Your task to perform on an android device: Clear the cart on amazon.com. Search for amazon basics triple a on amazon.com, select the first entry, add it to the cart, then select checkout. Image 0: 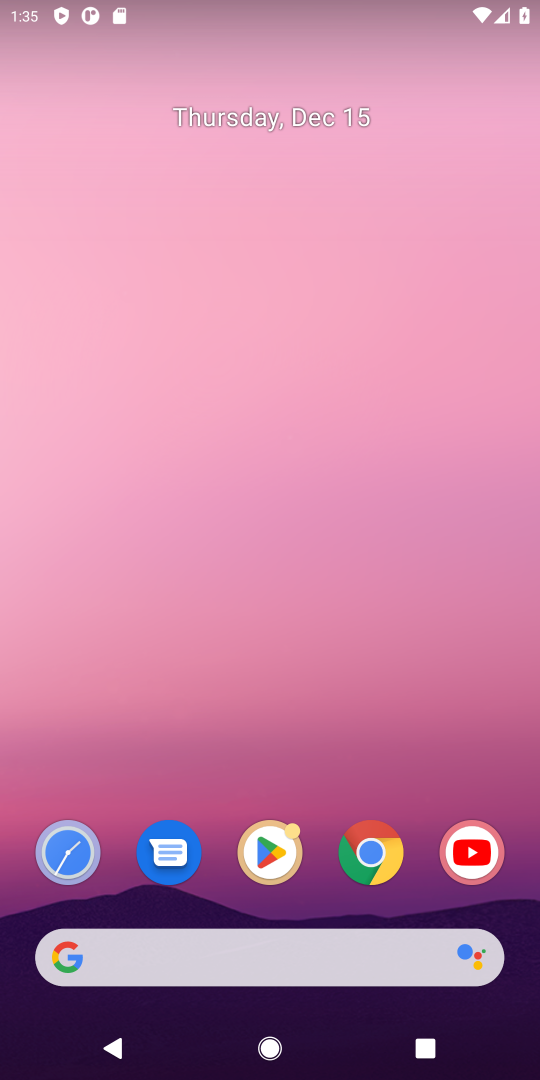
Step 0: click (384, 838)
Your task to perform on an android device: Clear the cart on amazon.com. Search for amazon basics triple a on amazon.com, select the first entry, add it to the cart, then select checkout. Image 1: 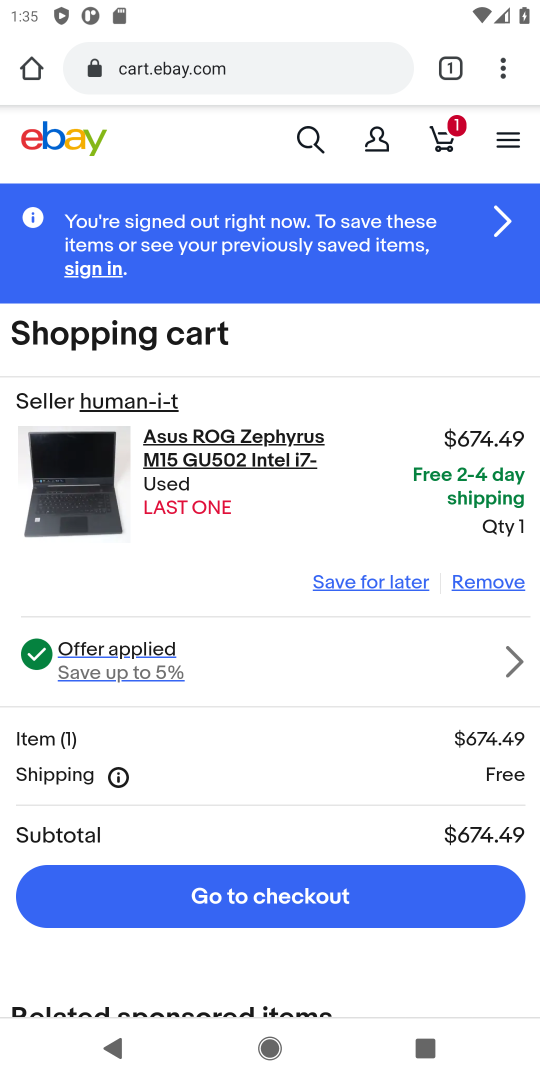
Step 1: click (226, 63)
Your task to perform on an android device: Clear the cart on amazon.com. Search for amazon basics triple a on amazon.com, select the first entry, add it to the cart, then select checkout. Image 2: 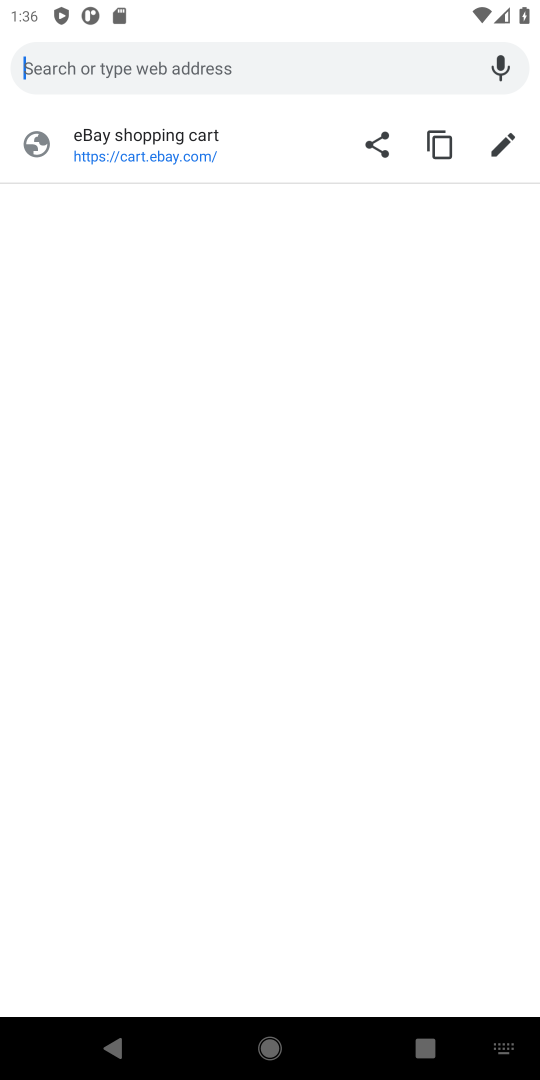
Step 2: type "amazon.com"
Your task to perform on an android device: Clear the cart on amazon.com. Search for amazon basics triple a on amazon.com, select the first entry, add it to the cart, then select checkout. Image 3: 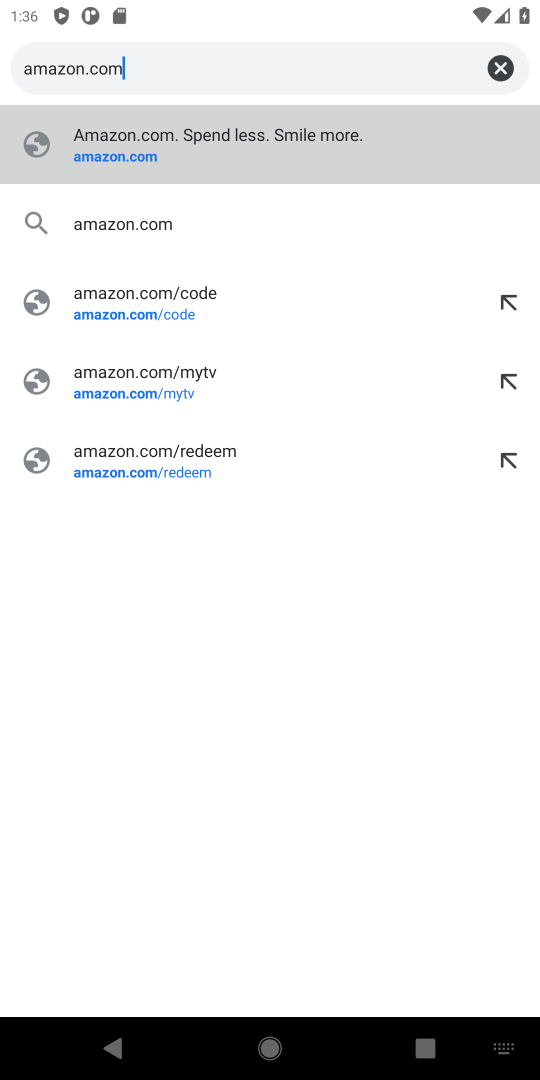
Step 3: click (215, 141)
Your task to perform on an android device: Clear the cart on amazon.com. Search for amazon basics triple a on amazon.com, select the first entry, add it to the cart, then select checkout. Image 4: 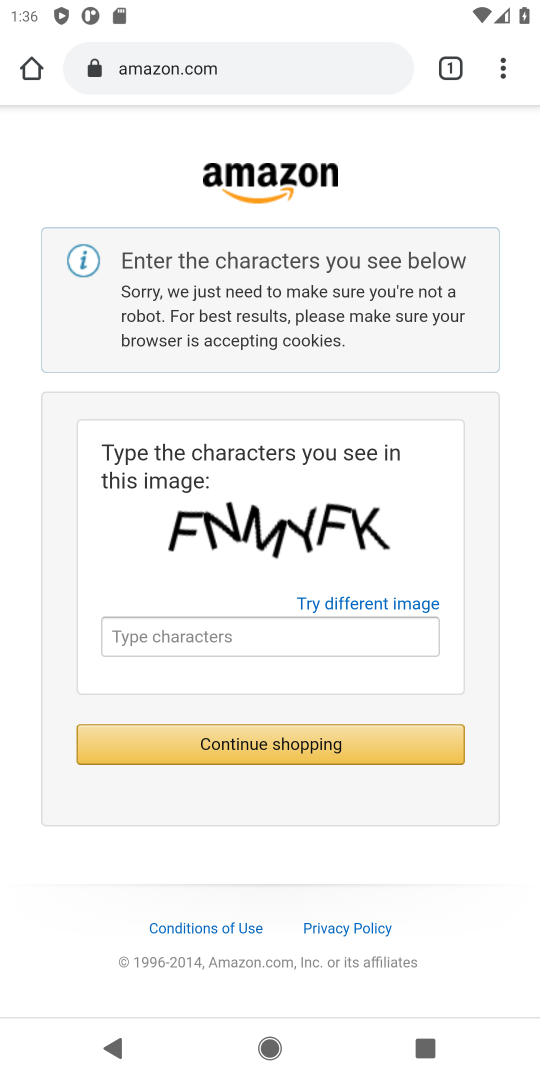
Step 4: click (227, 633)
Your task to perform on an android device: Clear the cart on amazon.com. Search for amazon basics triple a on amazon.com, select the first entry, add it to the cart, then select checkout. Image 5: 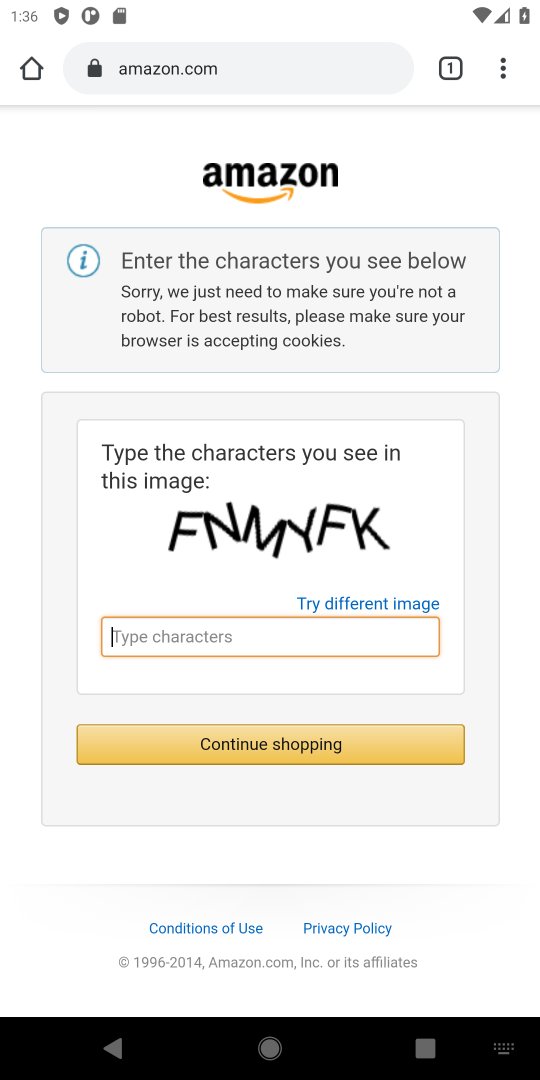
Step 5: type "FNMYFK"
Your task to perform on an android device: Clear the cart on amazon.com. Search for amazon basics triple a on amazon.com, select the first entry, add it to the cart, then select checkout. Image 6: 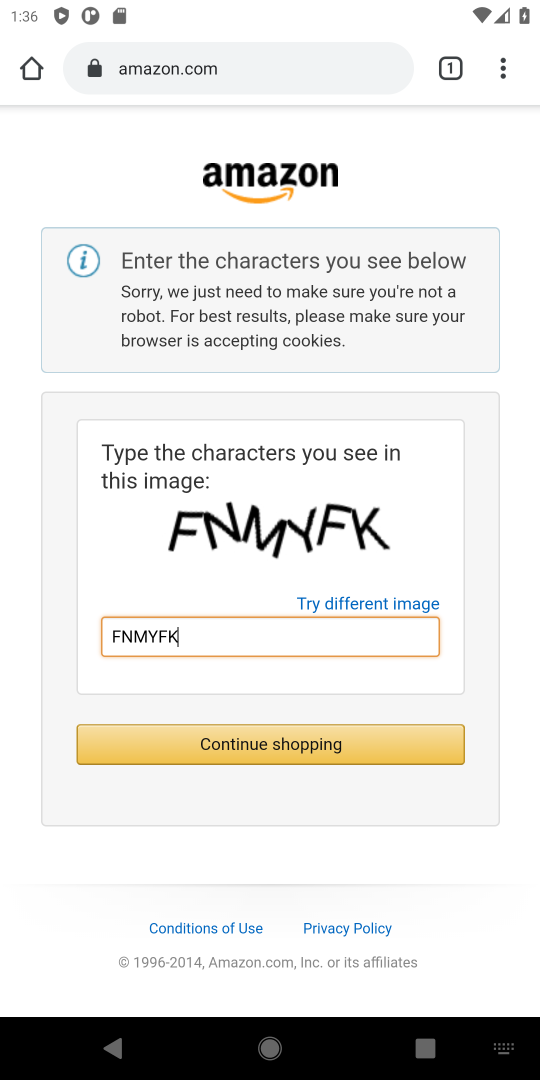
Step 6: click (329, 744)
Your task to perform on an android device: Clear the cart on amazon.com. Search for amazon basics triple a on amazon.com, select the first entry, add it to the cart, then select checkout. Image 7: 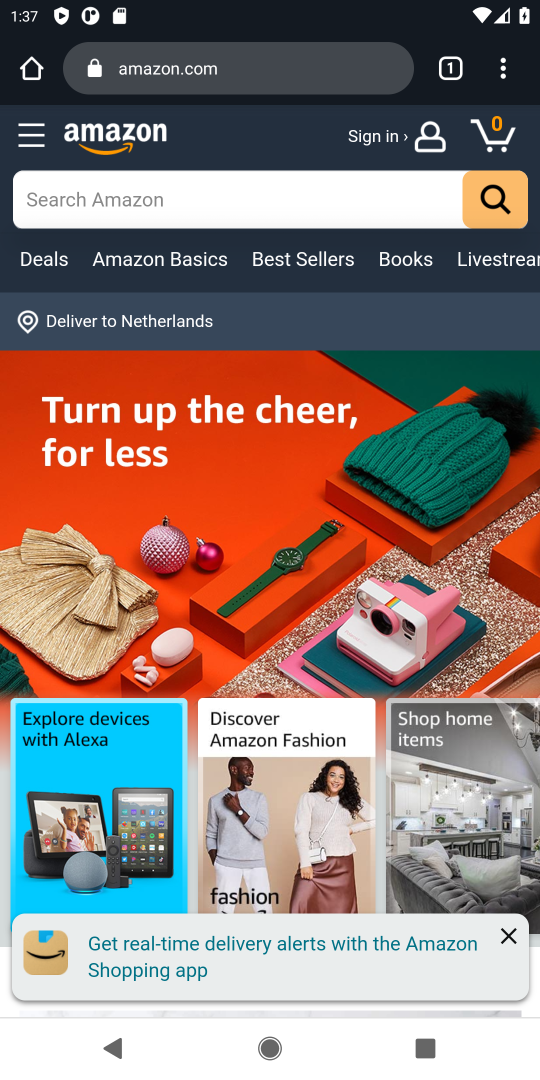
Step 7: click (291, 201)
Your task to perform on an android device: Clear the cart on amazon.com. Search for amazon basics triple a on amazon.com, select the first entry, add it to the cart, then select checkout. Image 8: 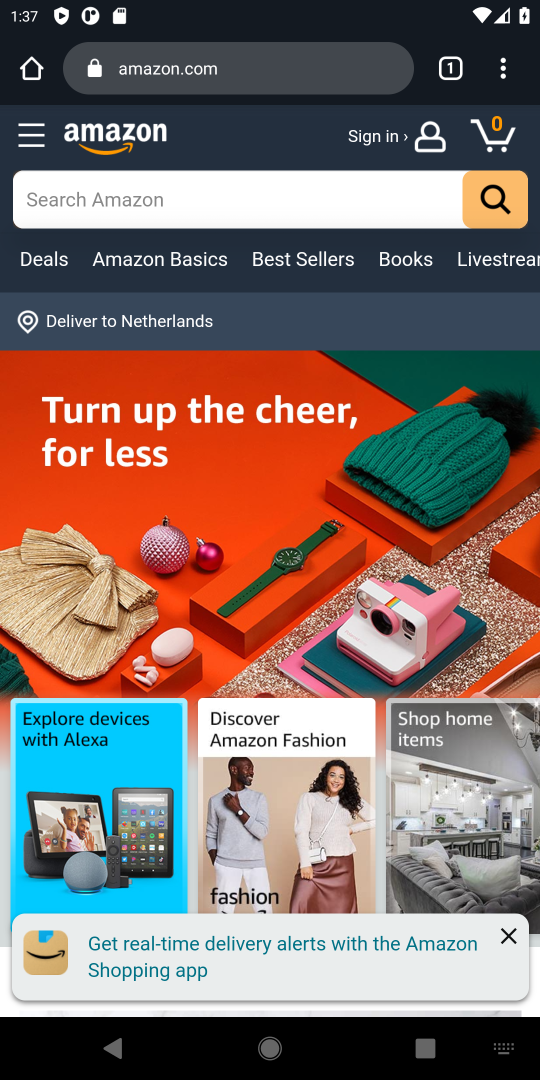
Step 8: type "amazon basics triple a"
Your task to perform on an android device: Clear the cart on amazon.com. Search for amazon basics triple a on amazon.com, select the first entry, add it to the cart, then select checkout. Image 9: 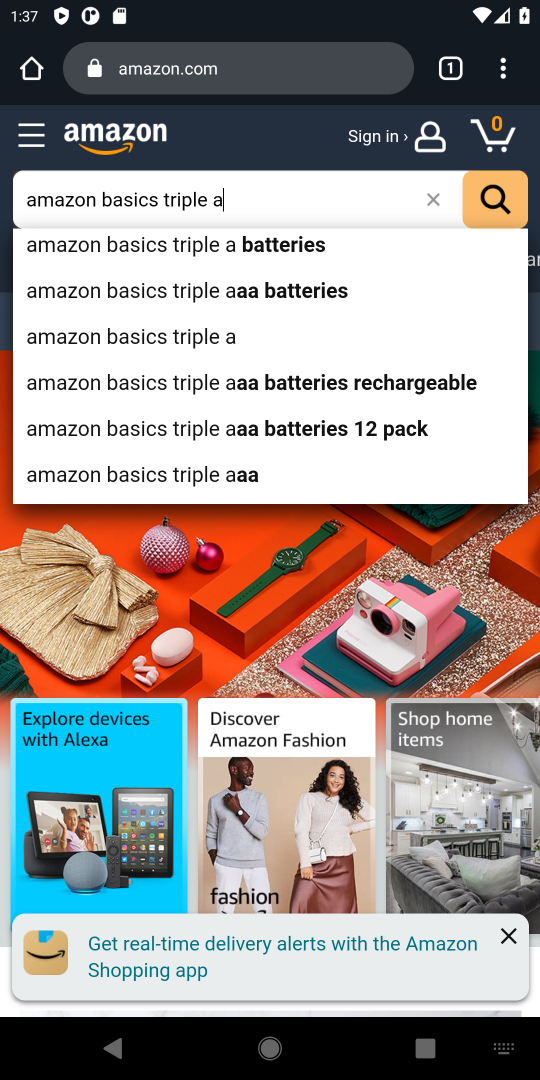
Step 9: press enter
Your task to perform on an android device: Clear the cart on amazon.com. Search for amazon basics triple a on amazon.com, select the first entry, add it to the cart, then select checkout. Image 10: 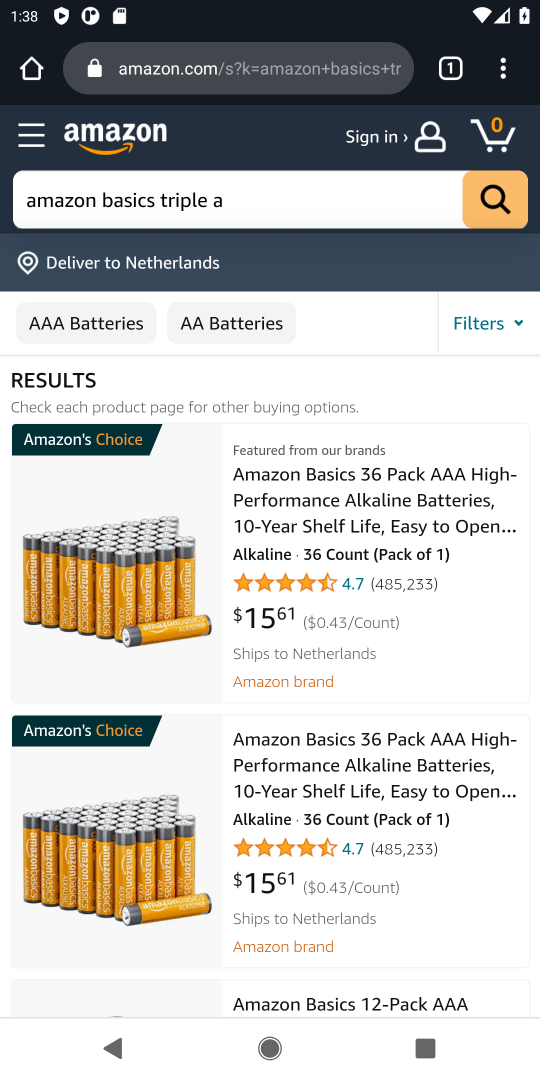
Step 10: click (198, 561)
Your task to perform on an android device: Clear the cart on amazon.com. Search for amazon basics triple a on amazon.com, select the first entry, add it to the cart, then select checkout. Image 11: 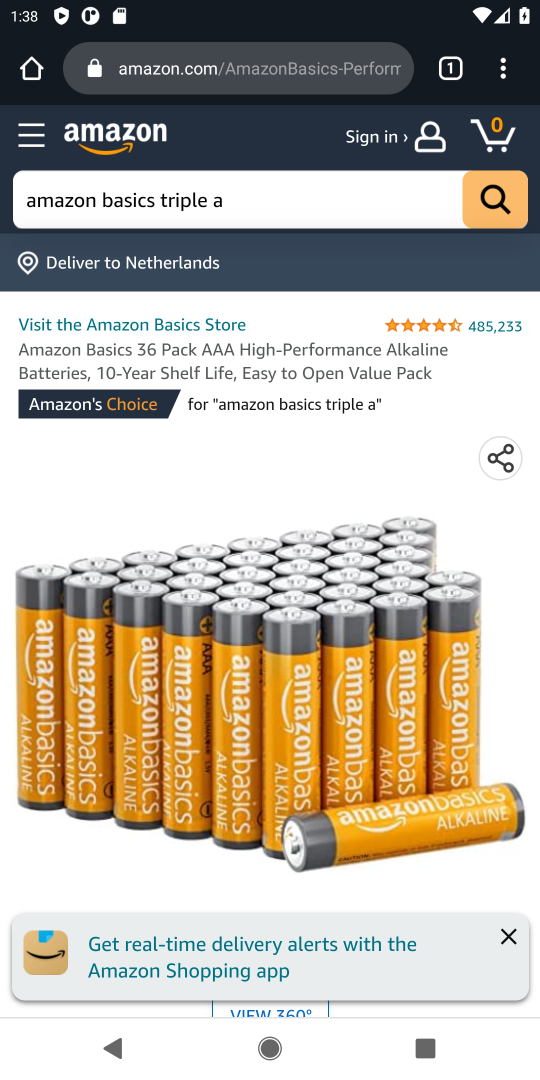
Step 11: drag from (358, 872) to (358, 407)
Your task to perform on an android device: Clear the cart on amazon.com. Search for amazon basics triple a on amazon.com, select the first entry, add it to the cart, then select checkout. Image 12: 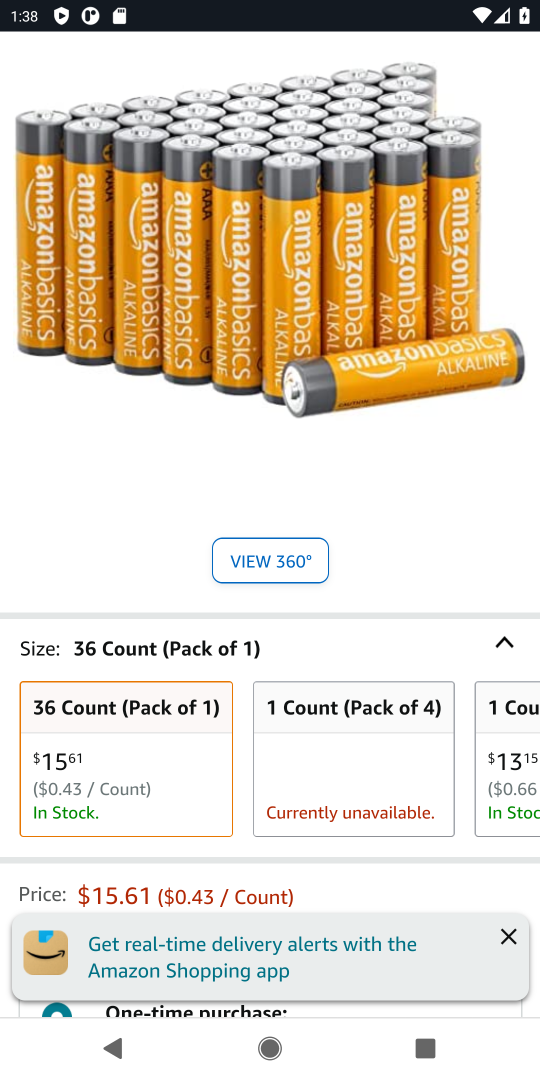
Step 12: drag from (369, 557) to (317, 91)
Your task to perform on an android device: Clear the cart on amazon.com. Search for amazon basics triple a on amazon.com, select the first entry, add it to the cart, then select checkout. Image 13: 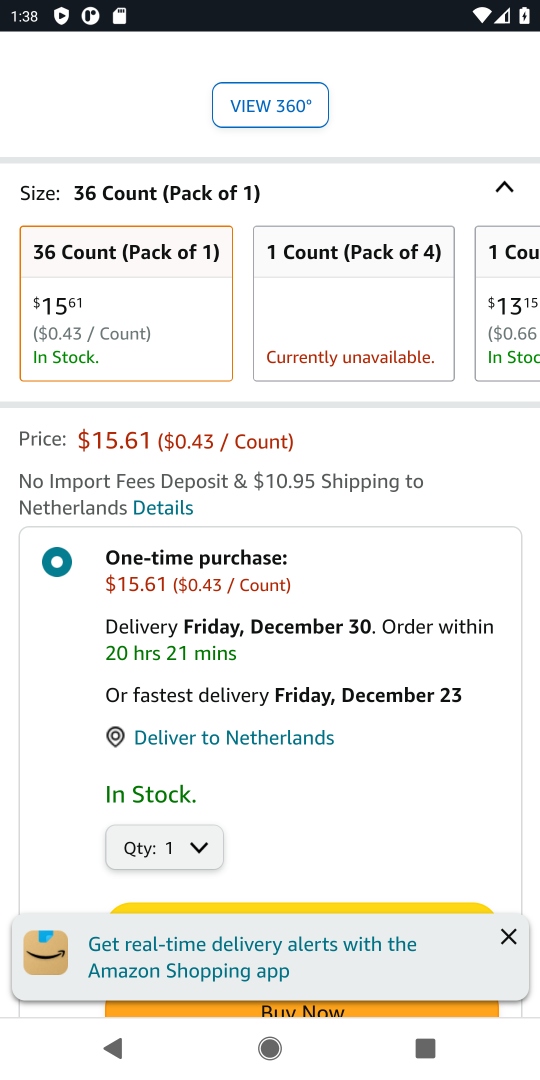
Step 13: drag from (476, 840) to (460, 584)
Your task to perform on an android device: Clear the cart on amazon.com. Search for amazon basics triple a on amazon.com, select the first entry, add it to the cart, then select checkout. Image 14: 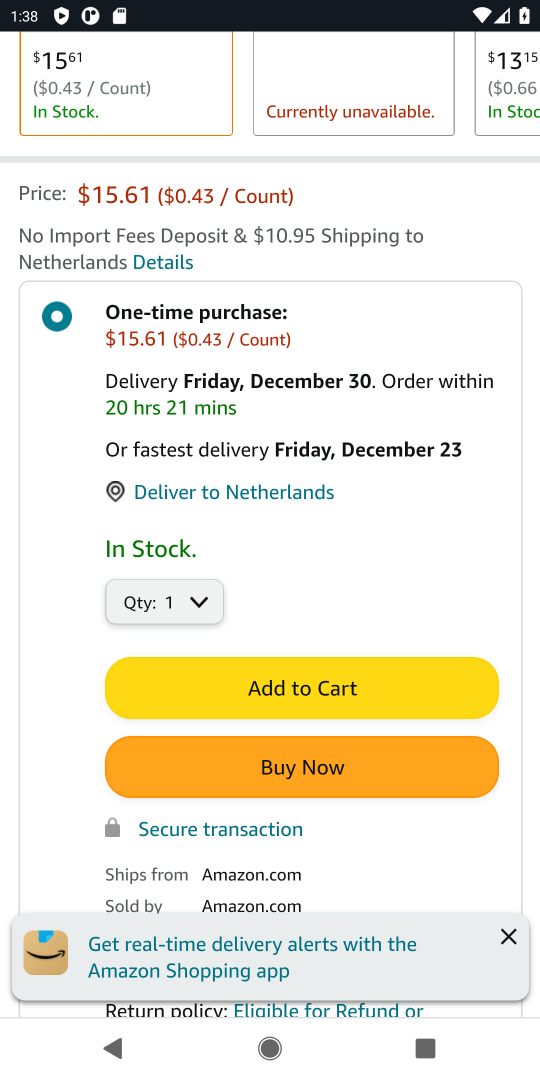
Step 14: click (381, 684)
Your task to perform on an android device: Clear the cart on amazon.com. Search for amazon basics triple a on amazon.com, select the first entry, add it to the cart, then select checkout. Image 15: 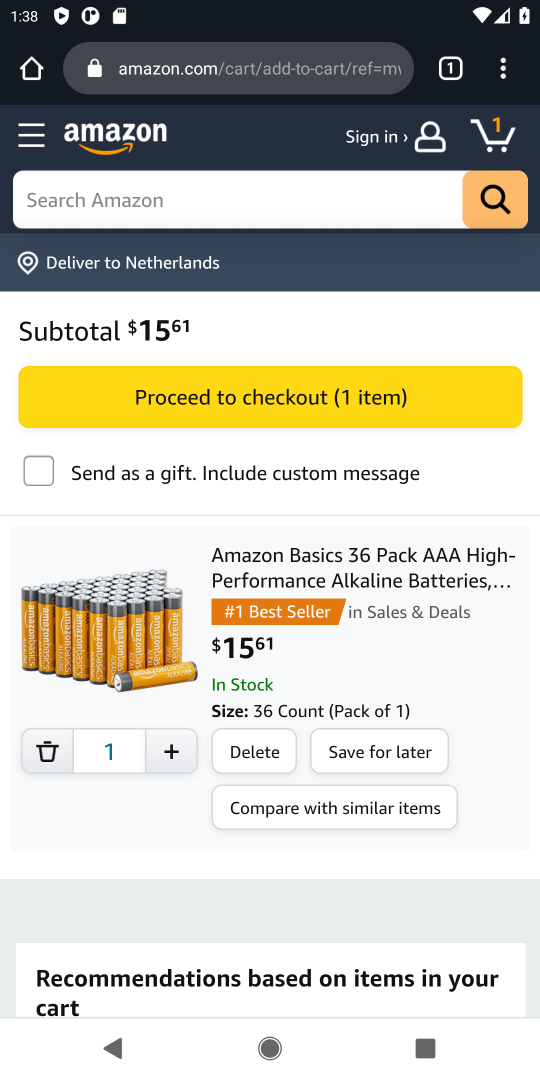
Step 15: click (234, 396)
Your task to perform on an android device: Clear the cart on amazon.com. Search for amazon basics triple a on amazon.com, select the first entry, add it to the cart, then select checkout. Image 16: 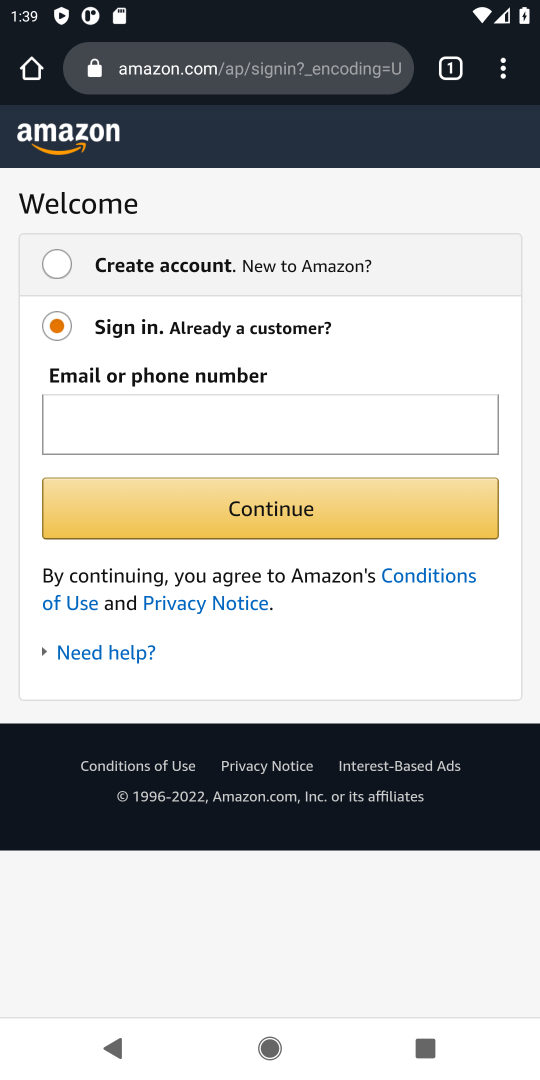
Step 16: task complete